Your task to perform on an android device: star an email in the gmail app Image 0: 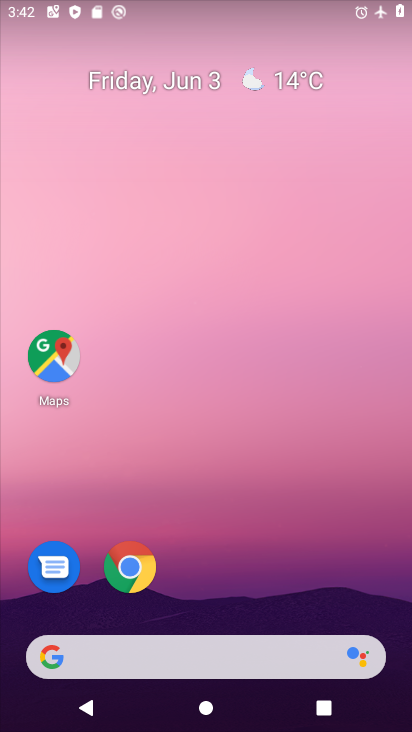
Step 0: drag from (263, 644) to (224, 184)
Your task to perform on an android device: star an email in the gmail app Image 1: 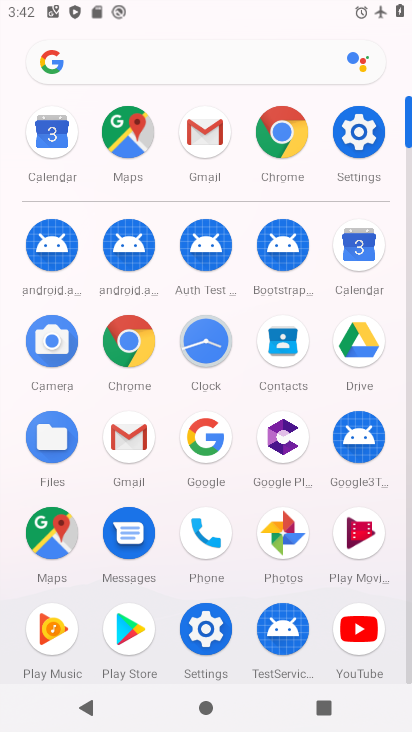
Step 1: click (211, 143)
Your task to perform on an android device: star an email in the gmail app Image 2: 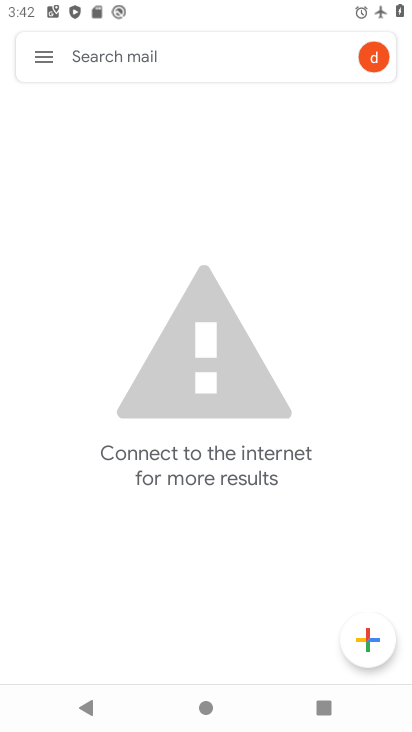
Step 2: click (49, 58)
Your task to perform on an android device: star an email in the gmail app Image 3: 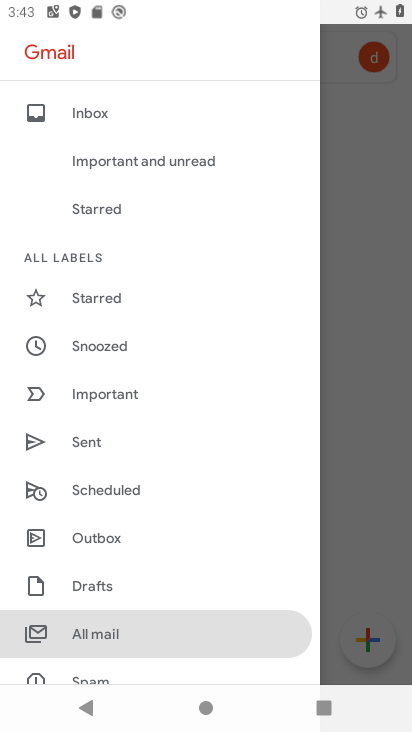
Step 3: click (106, 305)
Your task to perform on an android device: star an email in the gmail app Image 4: 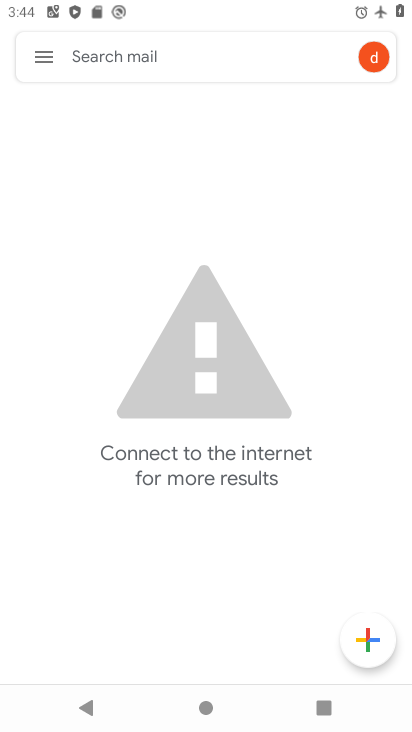
Step 4: task complete